Your task to perform on an android device: toggle pop-ups in chrome Image 0: 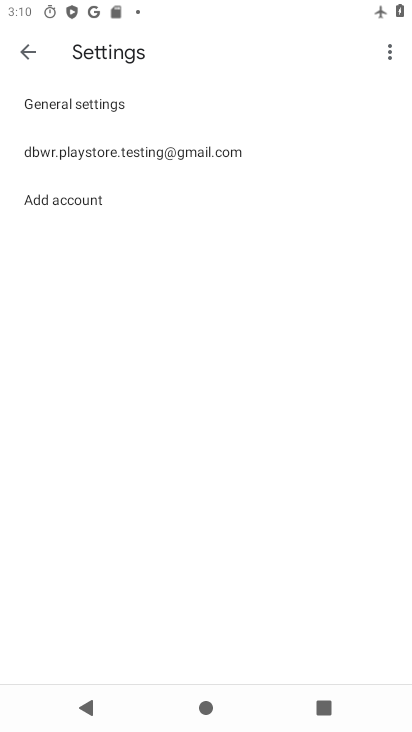
Step 0: press back button
Your task to perform on an android device: toggle pop-ups in chrome Image 1: 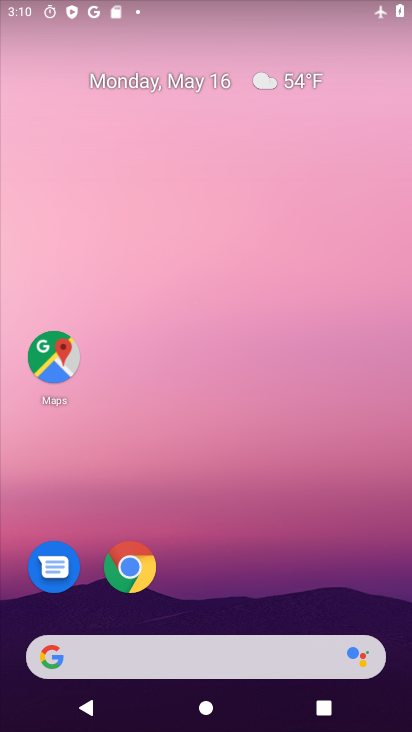
Step 1: click (132, 567)
Your task to perform on an android device: toggle pop-ups in chrome Image 2: 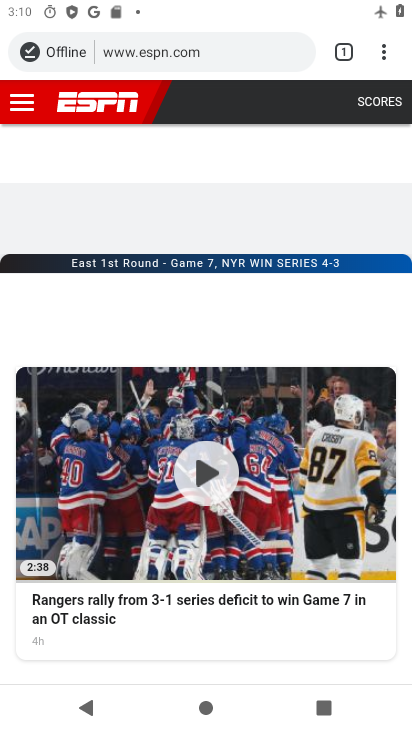
Step 2: click (383, 54)
Your task to perform on an android device: toggle pop-ups in chrome Image 3: 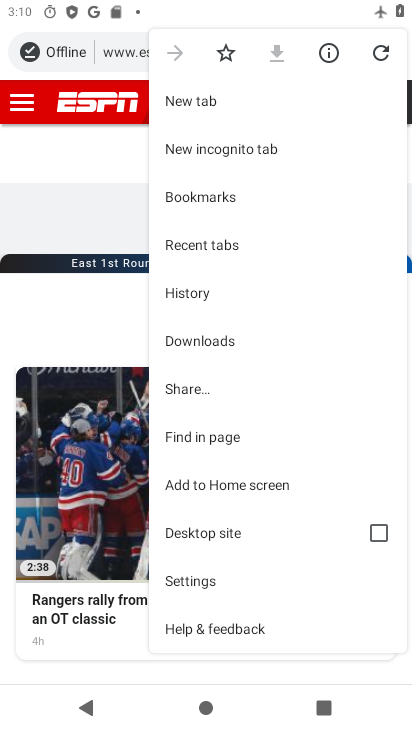
Step 3: click (199, 583)
Your task to perform on an android device: toggle pop-ups in chrome Image 4: 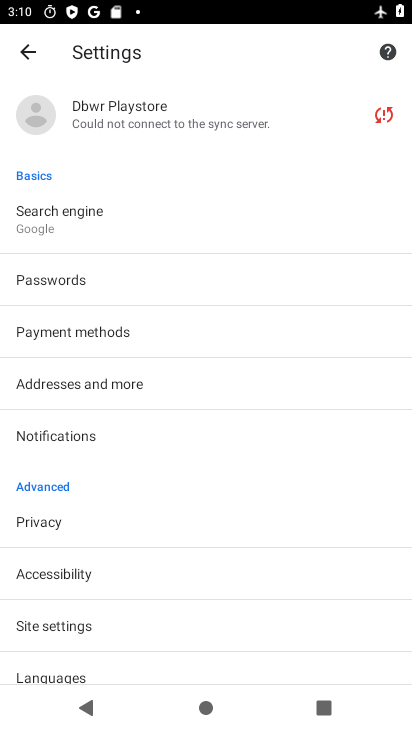
Step 4: drag from (117, 590) to (167, 527)
Your task to perform on an android device: toggle pop-ups in chrome Image 5: 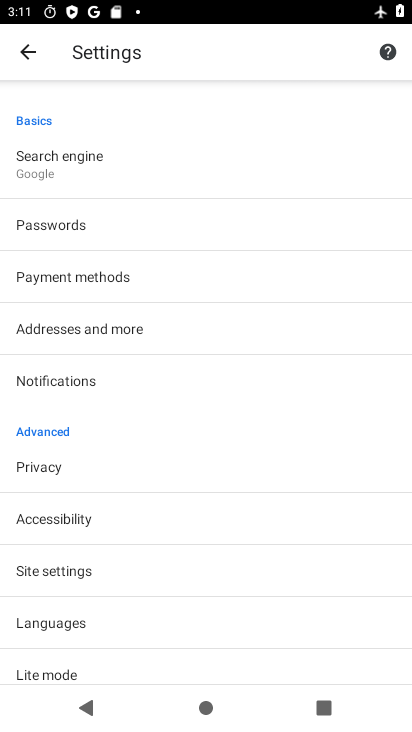
Step 5: click (69, 575)
Your task to perform on an android device: toggle pop-ups in chrome Image 6: 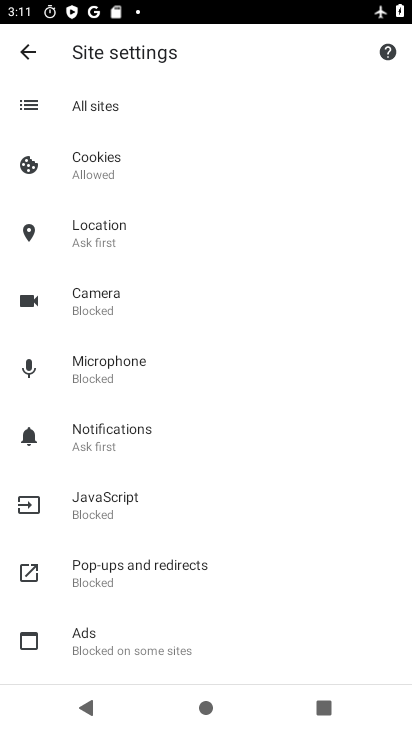
Step 6: click (140, 564)
Your task to perform on an android device: toggle pop-ups in chrome Image 7: 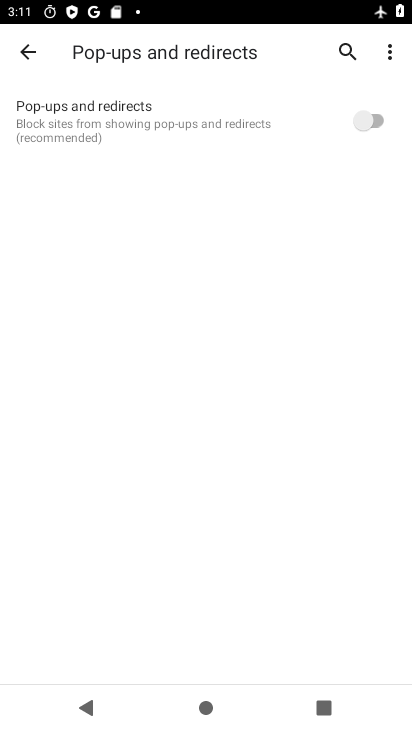
Step 7: click (363, 122)
Your task to perform on an android device: toggle pop-ups in chrome Image 8: 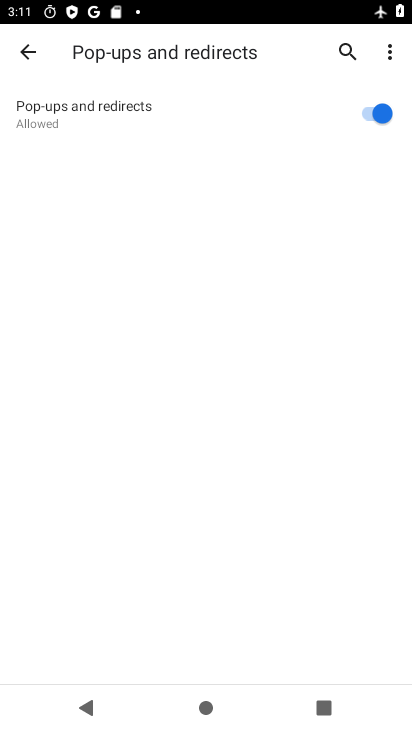
Step 8: task complete